Your task to perform on an android device: check out phone information Image 0: 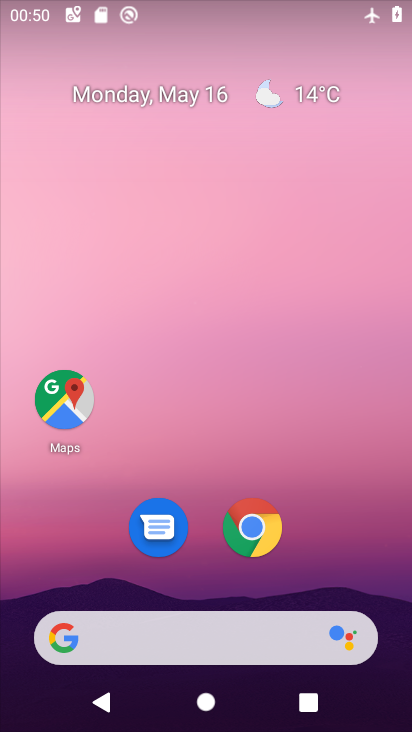
Step 0: drag from (206, 533) to (263, 3)
Your task to perform on an android device: check out phone information Image 1: 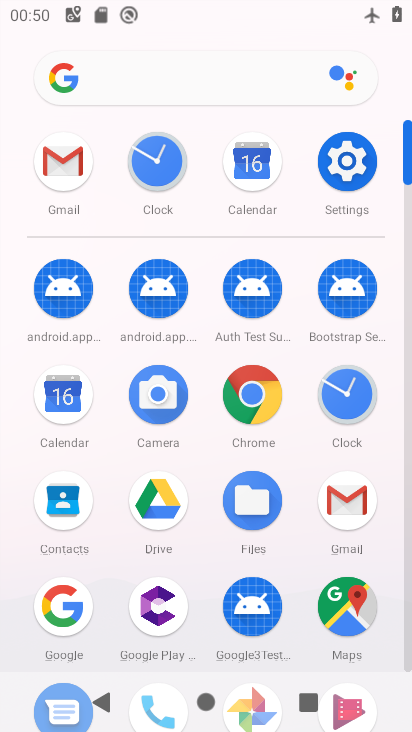
Step 1: click (352, 147)
Your task to perform on an android device: check out phone information Image 2: 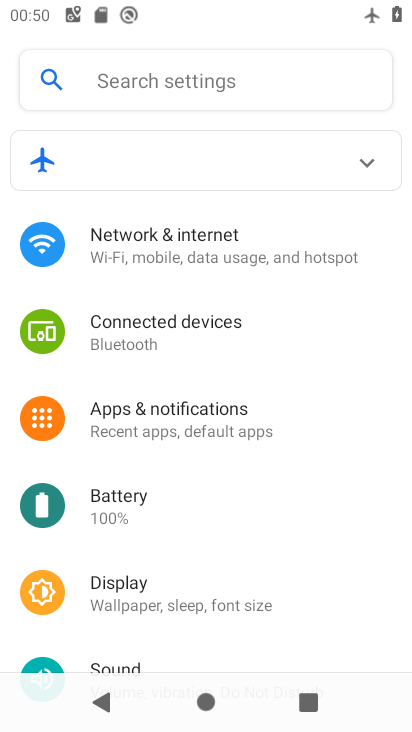
Step 2: drag from (231, 487) to (280, 85)
Your task to perform on an android device: check out phone information Image 3: 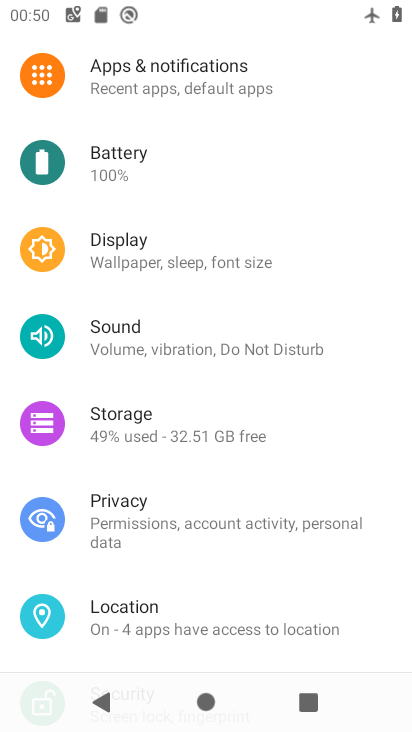
Step 3: drag from (196, 545) to (224, 123)
Your task to perform on an android device: check out phone information Image 4: 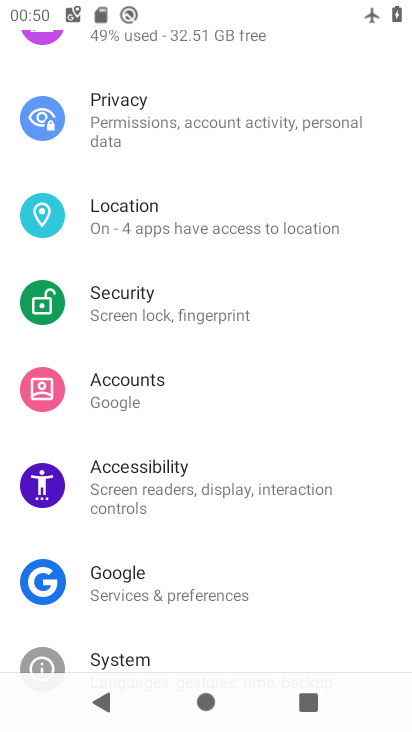
Step 4: drag from (156, 492) to (232, 82)
Your task to perform on an android device: check out phone information Image 5: 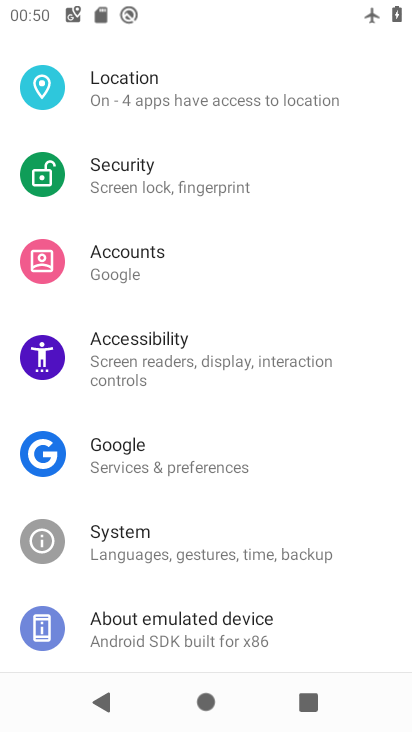
Step 5: click (178, 625)
Your task to perform on an android device: check out phone information Image 6: 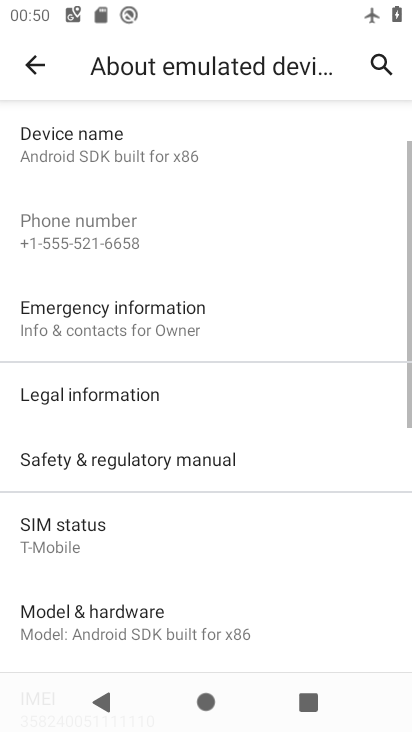
Step 6: task complete